Your task to perform on an android device: turn off data saver in the chrome app Image 0: 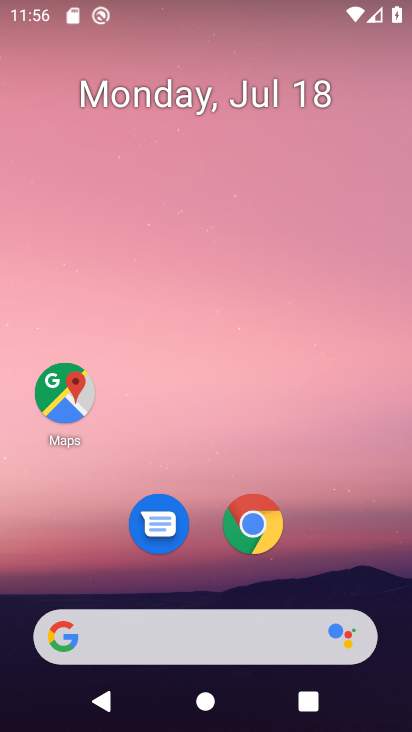
Step 0: click (263, 524)
Your task to perform on an android device: turn off data saver in the chrome app Image 1: 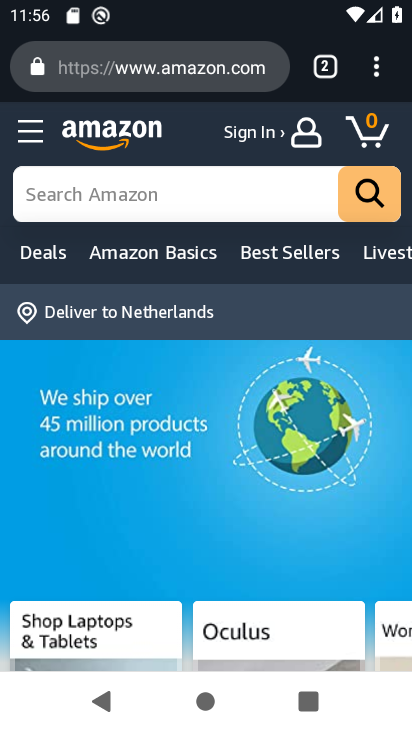
Step 1: click (378, 71)
Your task to perform on an android device: turn off data saver in the chrome app Image 2: 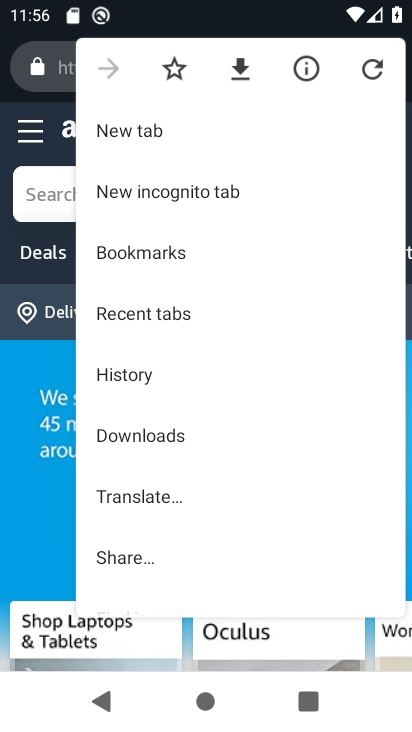
Step 2: drag from (207, 530) to (251, 114)
Your task to perform on an android device: turn off data saver in the chrome app Image 3: 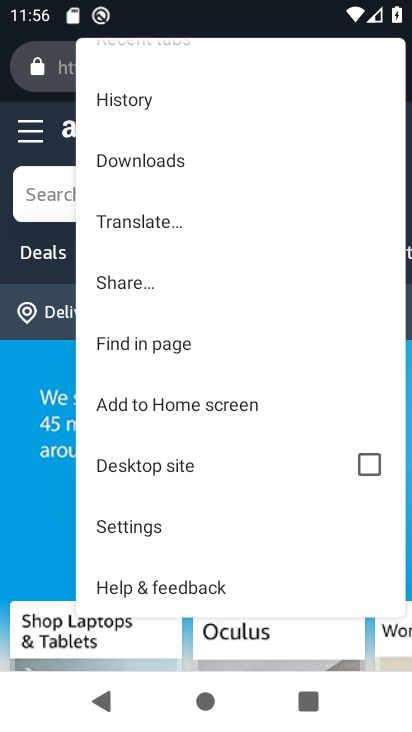
Step 3: click (135, 529)
Your task to perform on an android device: turn off data saver in the chrome app Image 4: 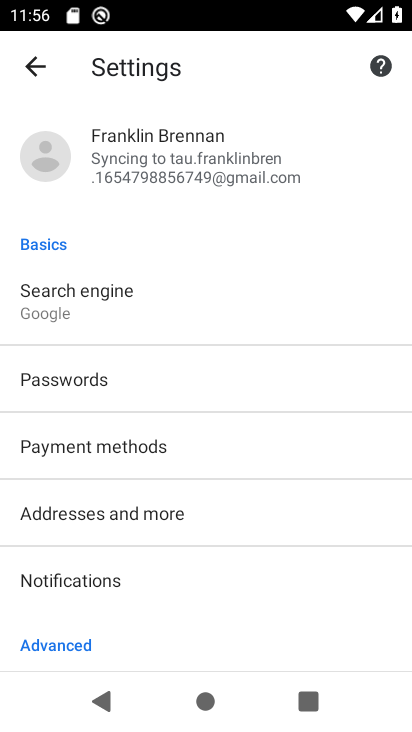
Step 4: drag from (263, 502) to (307, 108)
Your task to perform on an android device: turn off data saver in the chrome app Image 5: 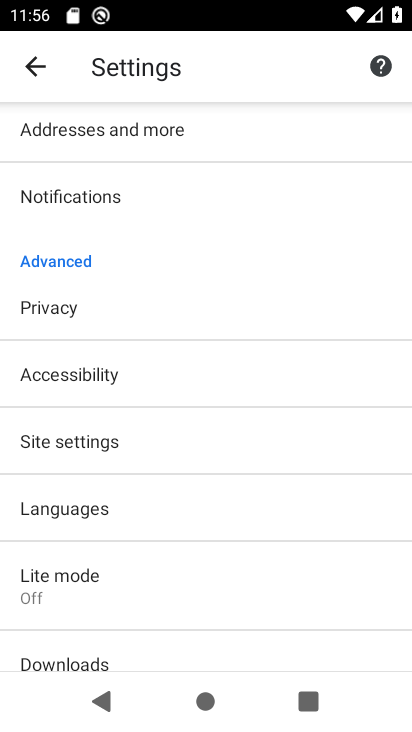
Step 5: click (103, 587)
Your task to perform on an android device: turn off data saver in the chrome app Image 6: 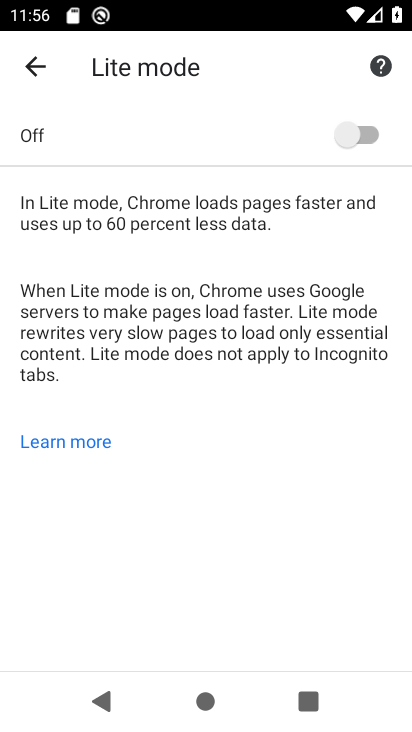
Step 6: task complete